Your task to perform on an android device: change keyboard looks Image 0: 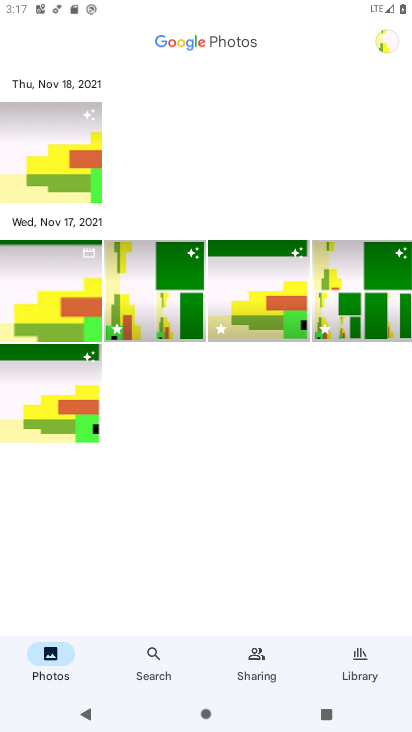
Step 0: press home button
Your task to perform on an android device: change keyboard looks Image 1: 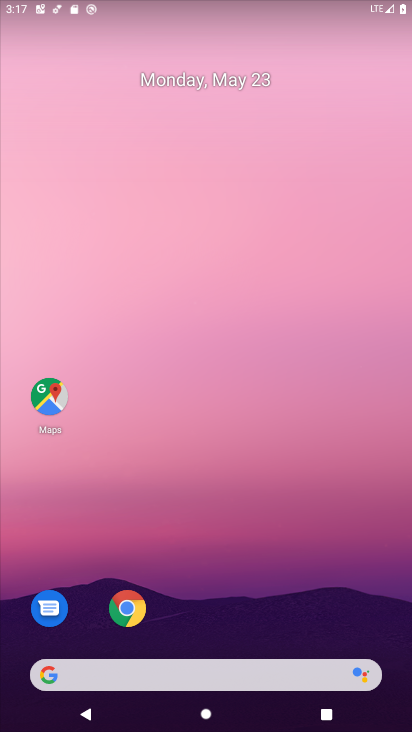
Step 1: drag from (224, 628) to (155, 249)
Your task to perform on an android device: change keyboard looks Image 2: 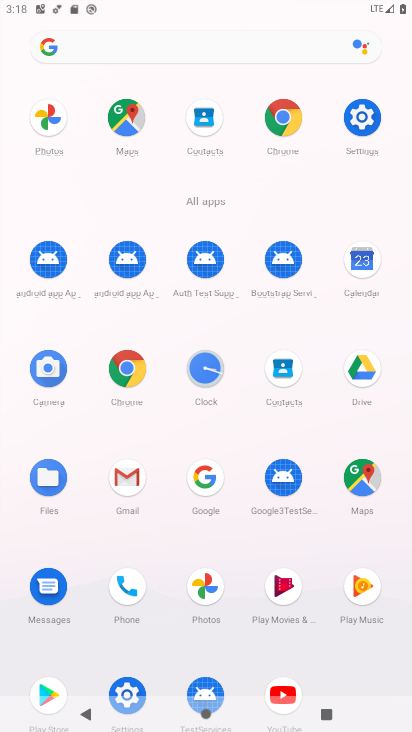
Step 2: click (366, 121)
Your task to perform on an android device: change keyboard looks Image 3: 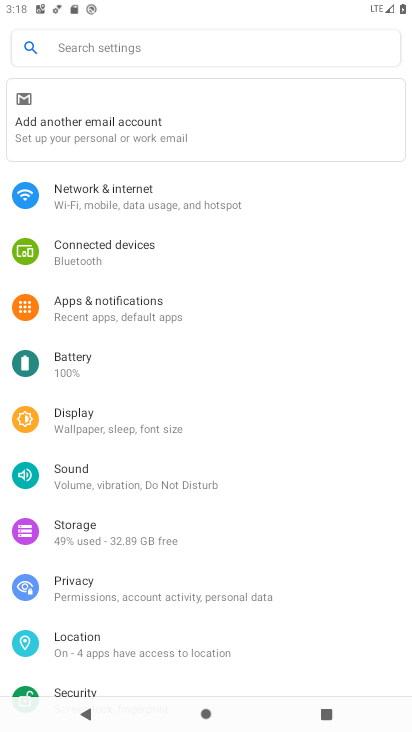
Step 3: drag from (207, 668) to (148, 113)
Your task to perform on an android device: change keyboard looks Image 4: 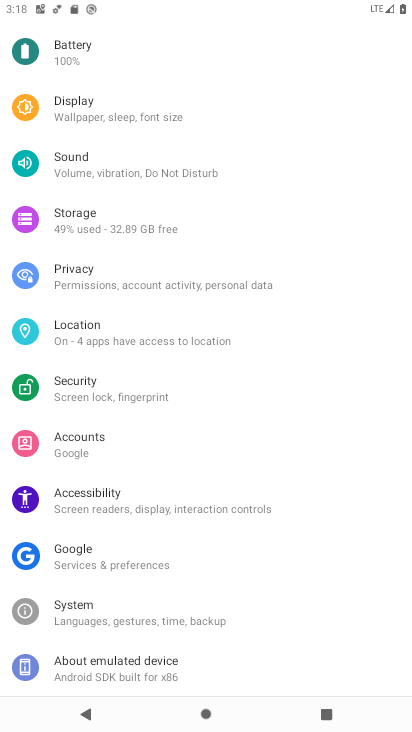
Step 4: click (125, 608)
Your task to perform on an android device: change keyboard looks Image 5: 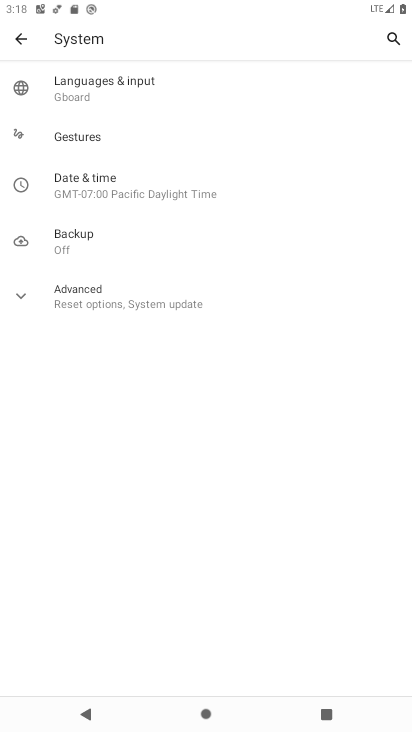
Step 5: click (150, 89)
Your task to perform on an android device: change keyboard looks Image 6: 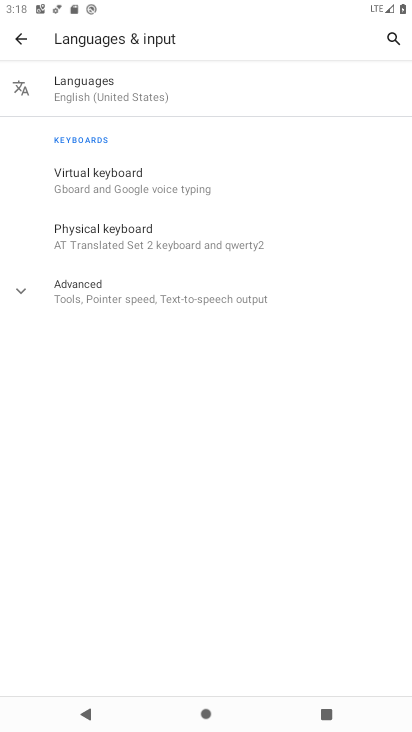
Step 6: click (153, 186)
Your task to perform on an android device: change keyboard looks Image 7: 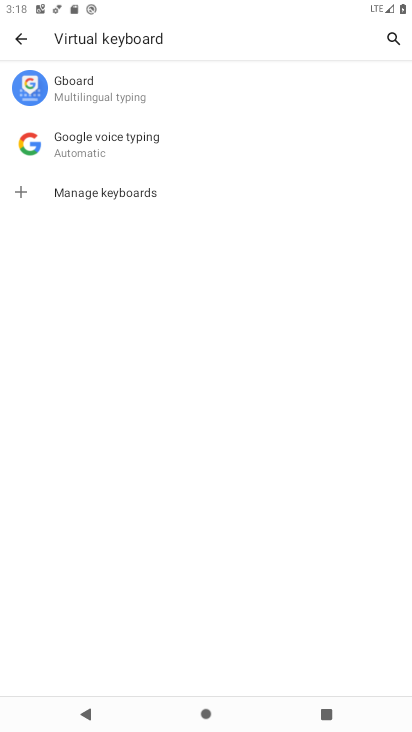
Step 7: click (115, 79)
Your task to perform on an android device: change keyboard looks Image 8: 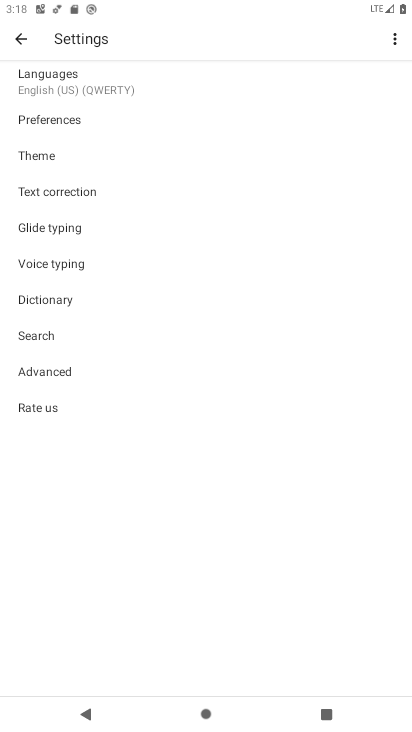
Step 8: click (87, 165)
Your task to perform on an android device: change keyboard looks Image 9: 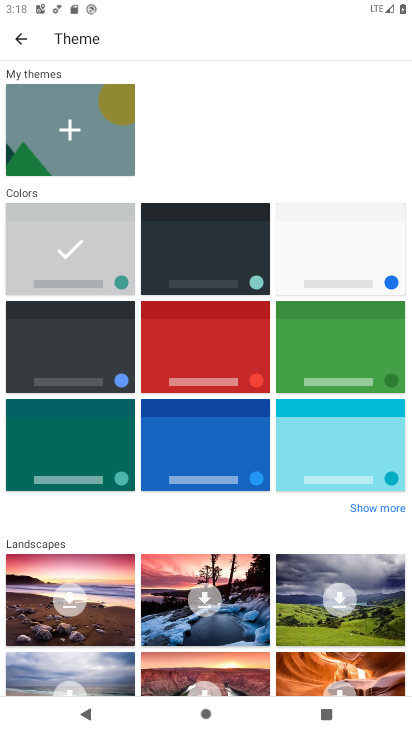
Step 9: click (184, 243)
Your task to perform on an android device: change keyboard looks Image 10: 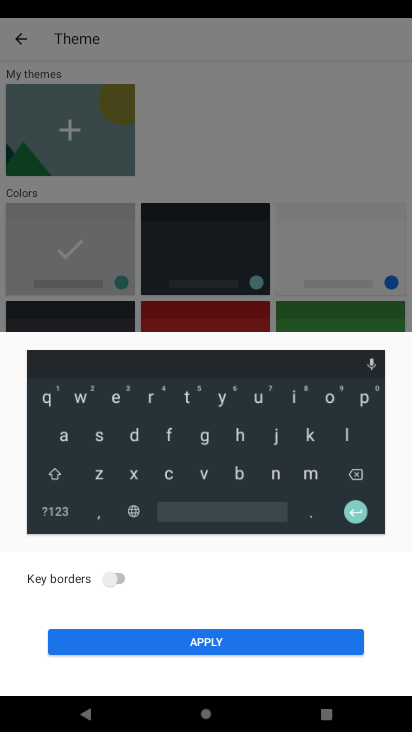
Step 10: click (218, 632)
Your task to perform on an android device: change keyboard looks Image 11: 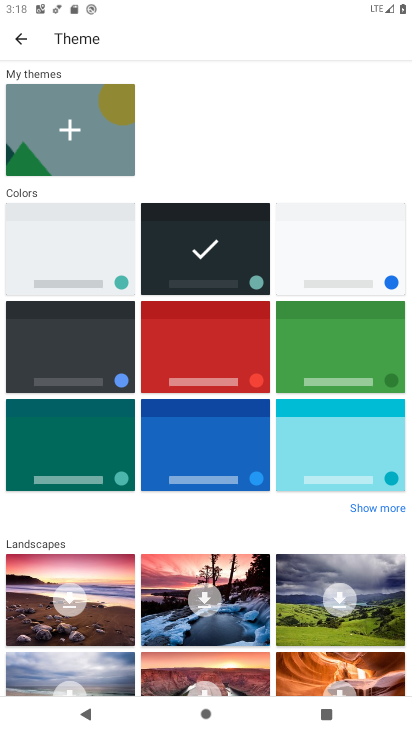
Step 11: click (218, 646)
Your task to perform on an android device: change keyboard looks Image 12: 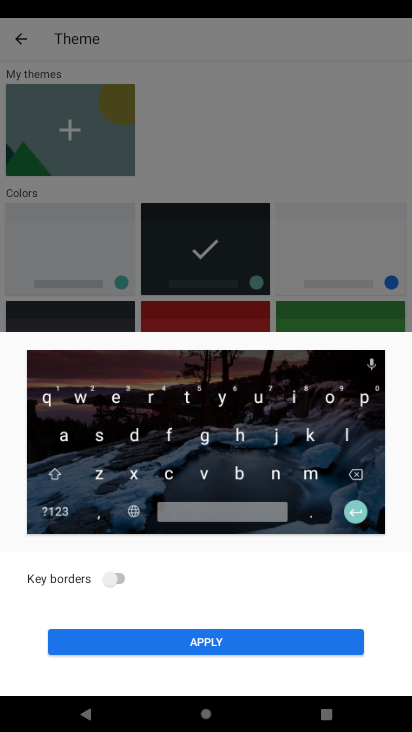
Step 12: task complete